Your task to perform on an android device: turn pop-ups on in chrome Image 0: 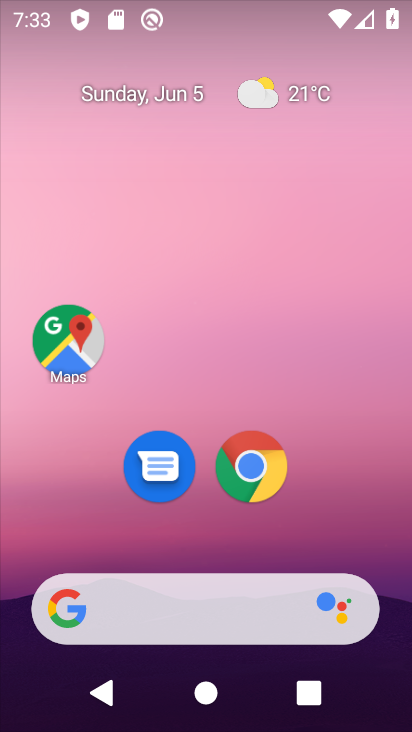
Step 0: click (260, 468)
Your task to perform on an android device: turn pop-ups on in chrome Image 1: 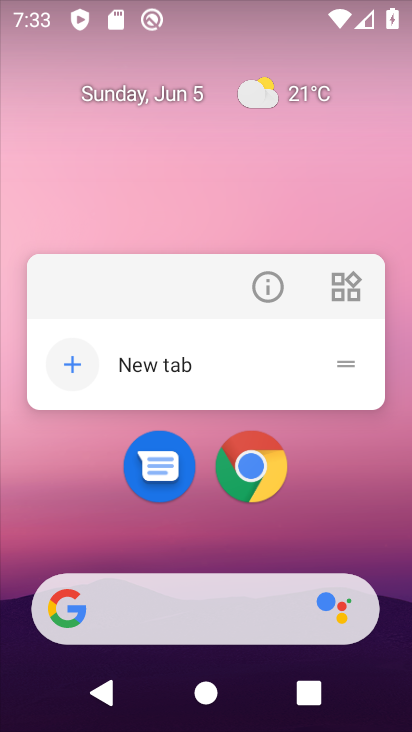
Step 1: click (241, 458)
Your task to perform on an android device: turn pop-ups on in chrome Image 2: 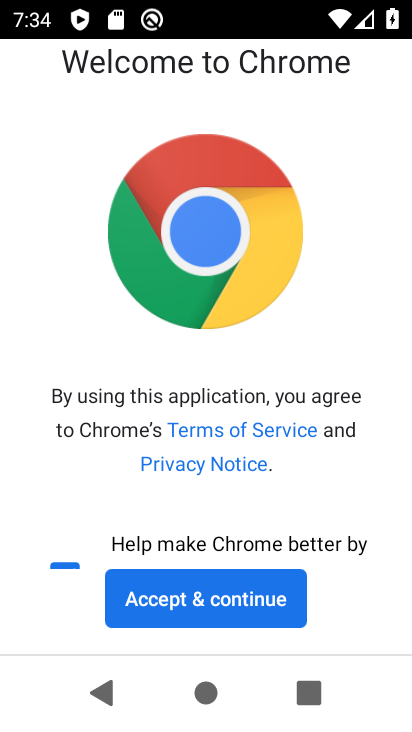
Step 2: click (190, 590)
Your task to perform on an android device: turn pop-ups on in chrome Image 3: 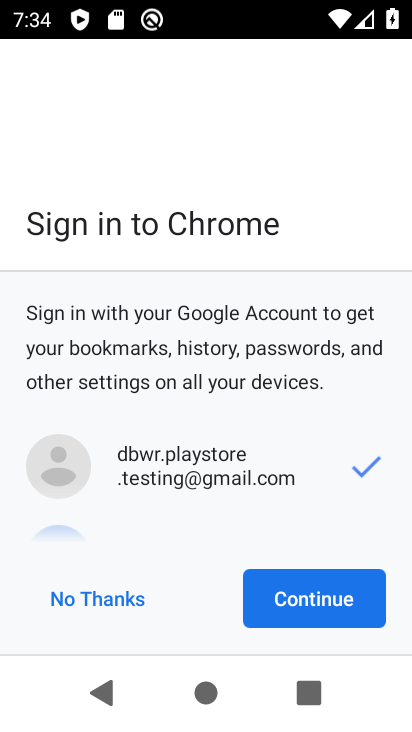
Step 3: click (289, 594)
Your task to perform on an android device: turn pop-ups on in chrome Image 4: 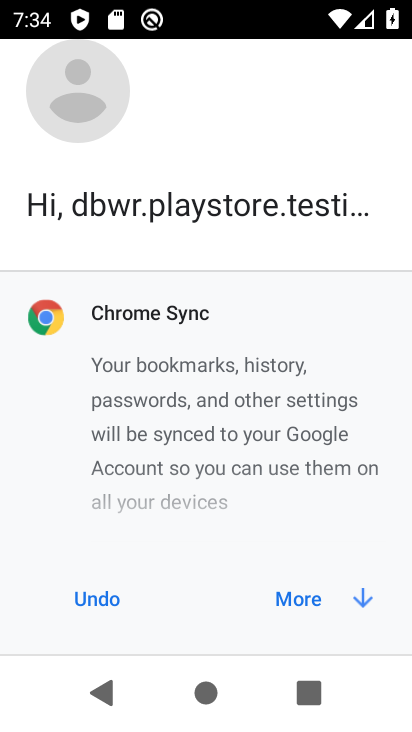
Step 4: click (293, 598)
Your task to perform on an android device: turn pop-ups on in chrome Image 5: 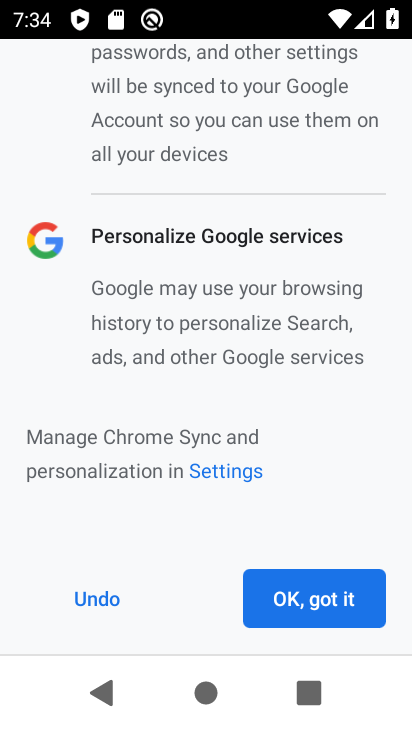
Step 5: click (288, 594)
Your task to perform on an android device: turn pop-ups on in chrome Image 6: 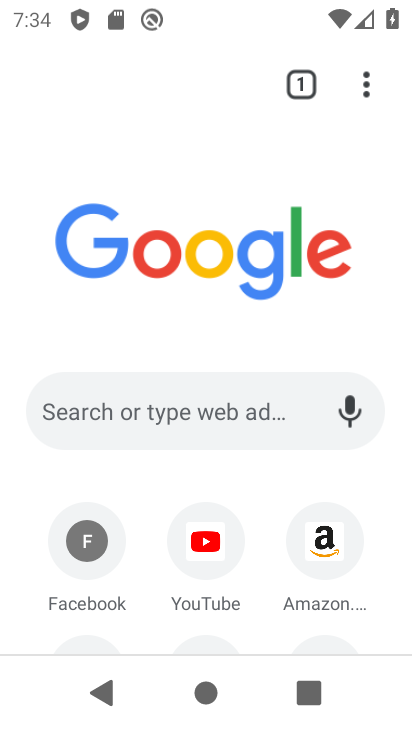
Step 6: drag from (369, 78) to (121, 503)
Your task to perform on an android device: turn pop-ups on in chrome Image 7: 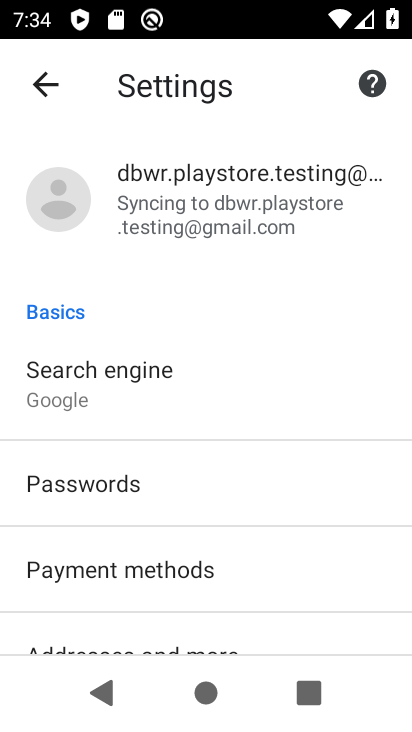
Step 7: drag from (122, 649) to (140, 227)
Your task to perform on an android device: turn pop-ups on in chrome Image 8: 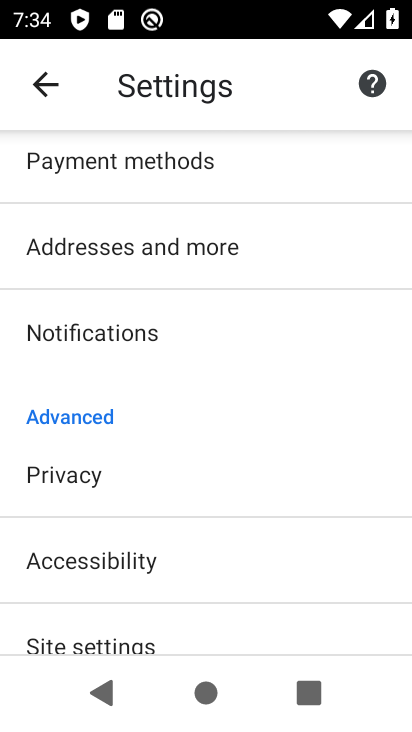
Step 8: drag from (145, 599) to (191, 277)
Your task to perform on an android device: turn pop-ups on in chrome Image 9: 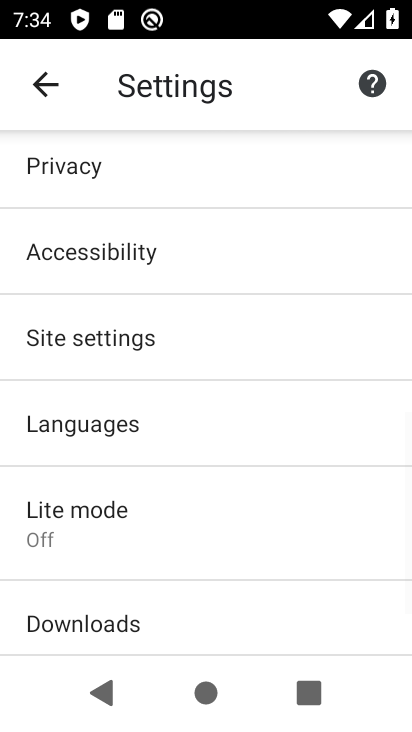
Step 9: click (106, 352)
Your task to perform on an android device: turn pop-ups on in chrome Image 10: 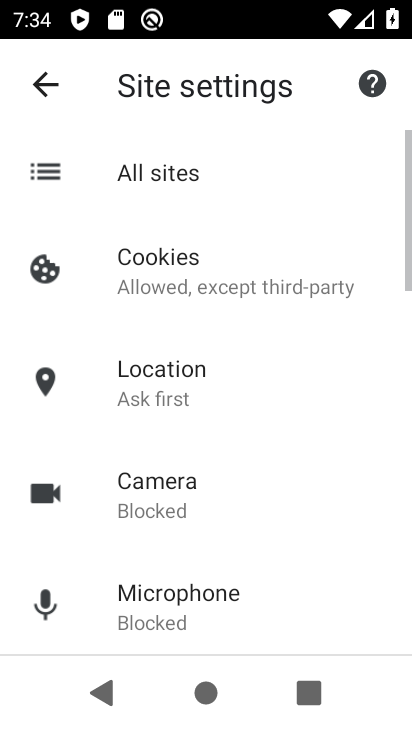
Step 10: drag from (200, 603) to (260, 158)
Your task to perform on an android device: turn pop-ups on in chrome Image 11: 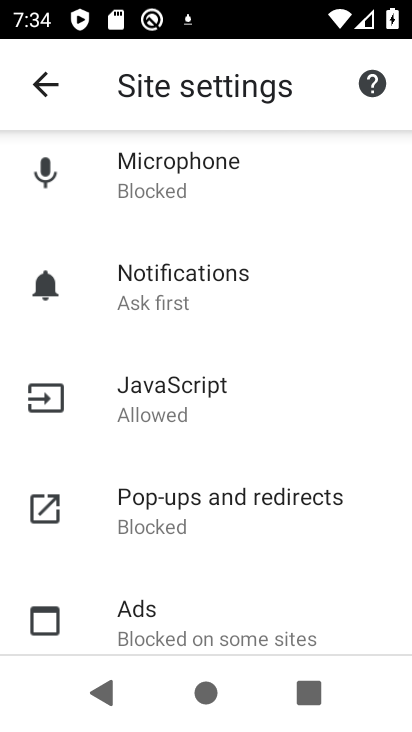
Step 11: click (207, 515)
Your task to perform on an android device: turn pop-ups on in chrome Image 12: 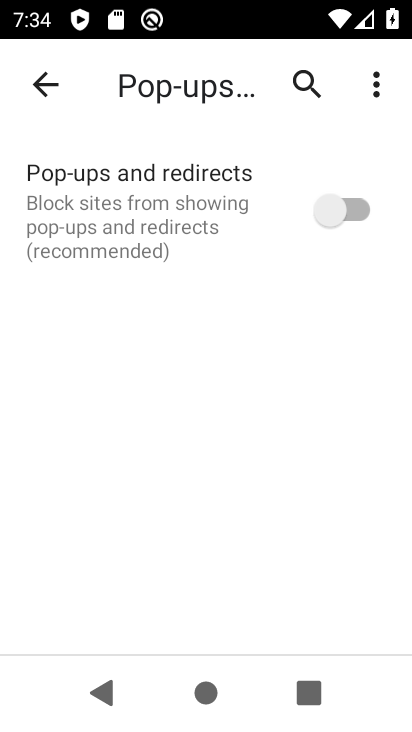
Step 12: click (336, 205)
Your task to perform on an android device: turn pop-ups on in chrome Image 13: 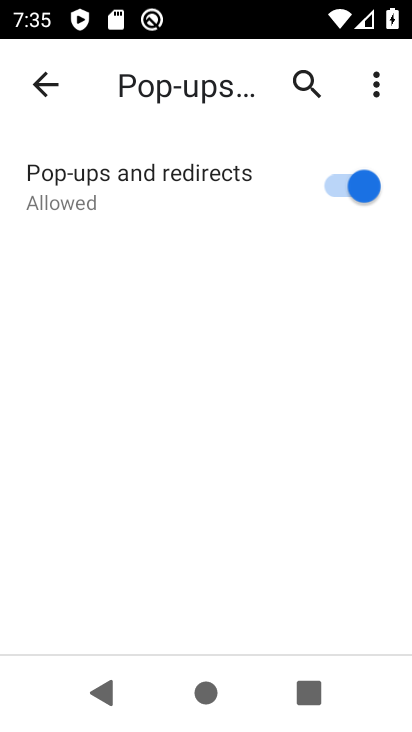
Step 13: task complete